Your task to perform on an android device: open wifi settings Image 0: 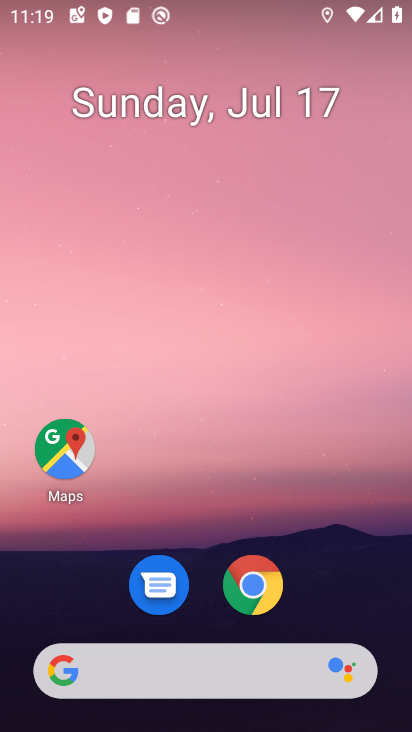
Step 0: drag from (351, 578) to (375, 76)
Your task to perform on an android device: open wifi settings Image 1: 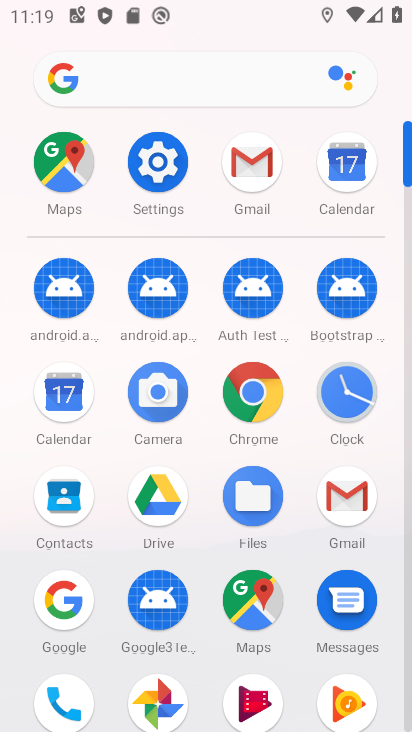
Step 1: click (145, 150)
Your task to perform on an android device: open wifi settings Image 2: 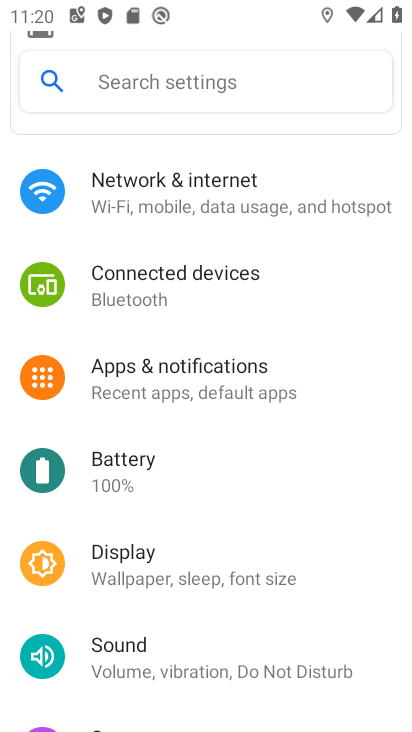
Step 2: click (225, 184)
Your task to perform on an android device: open wifi settings Image 3: 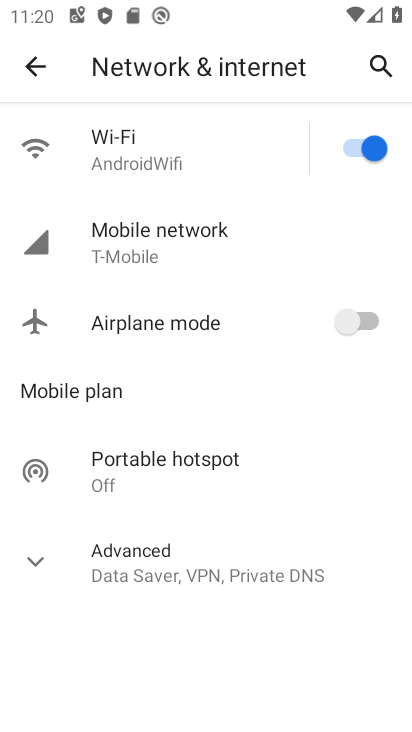
Step 3: click (122, 123)
Your task to perform on an android device: open wifi settings Image 4: 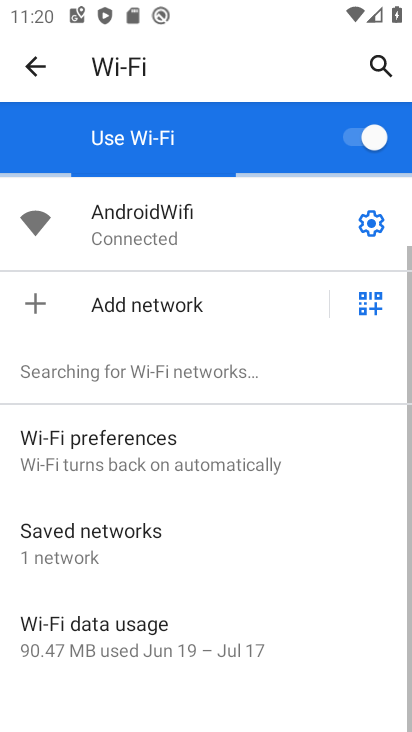
Step 4: task complete